Your task to perform on an android device: turn on notifications settings in the gmail app Image 0: 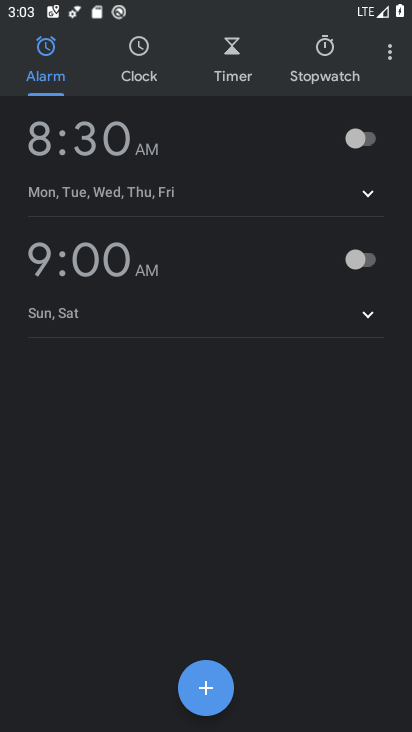
Step 0: press home button
Your task to perform on an android device: turn on notifications settings in the gmail app Image 1: 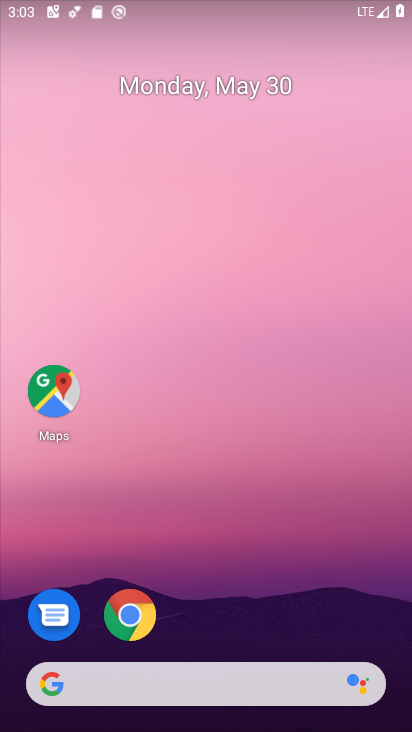
Step 1: drag from (228, 577) to (257, 59)
Your task to perform on an android device: turn on notifications settings in the gmail app Image 2: 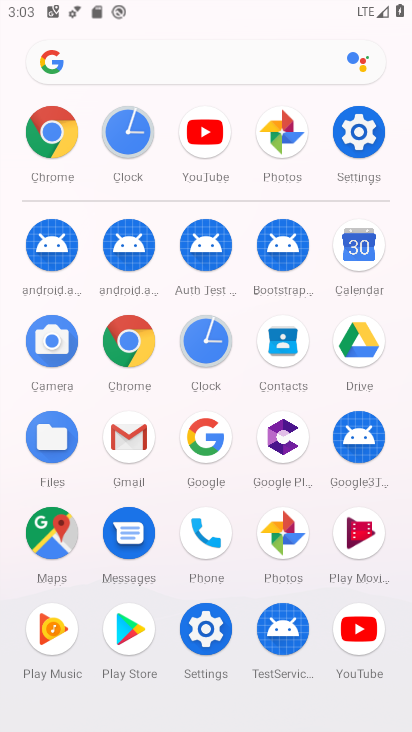
Step 2: click (143, 438)
Your task to perform on an android device: turn on notifications settings in the gmail app Image 3: 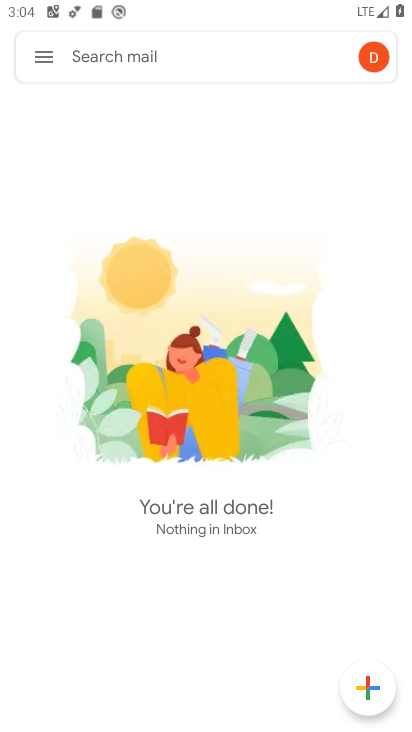
Step 3: click (43, 59)
Your task to perform on an android device: turn on notifications settings in the gmail app Image 4: 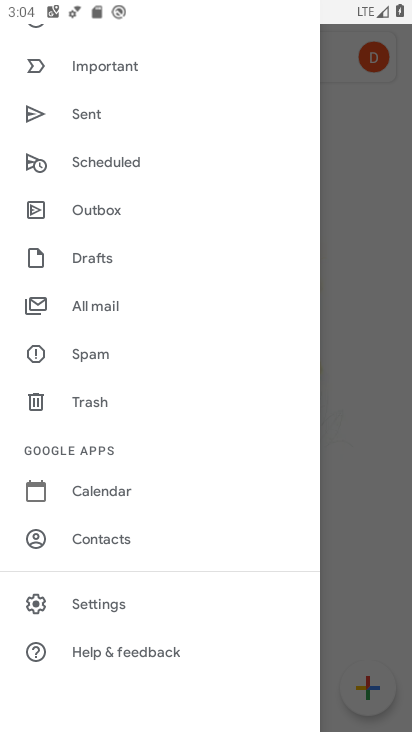
Step 4: click (107, 596)
Your task to perform on an android device: turn on notifications settings in the gmail app Image 5: 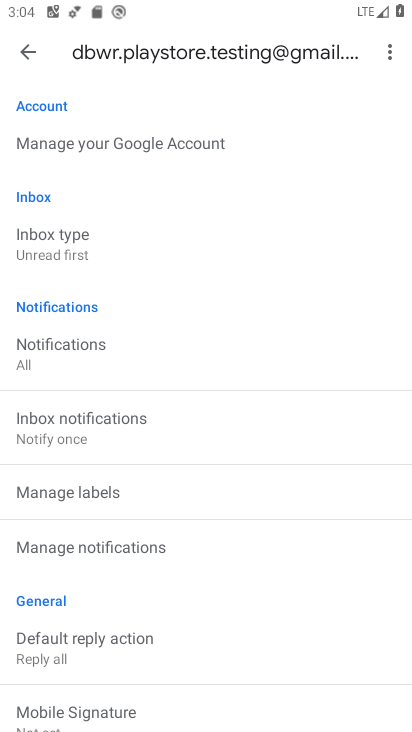
Step 5: click (192, 532)
Your task to perform on an android device: turn on notifications settings in the gmail app Image 6: 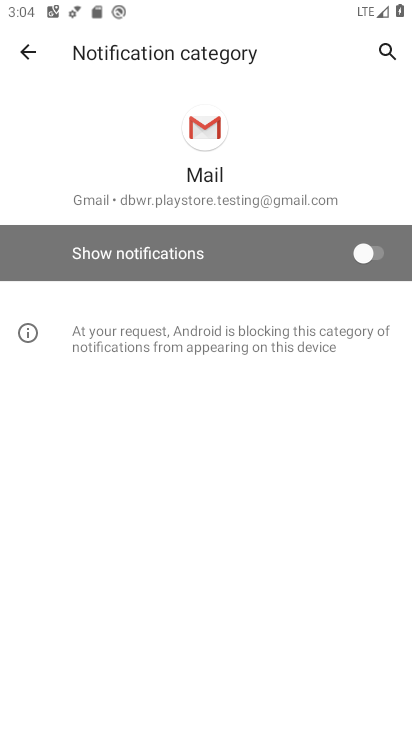
Step 6: click (366, 247)
Your task to perform on an android device: turn on notifications settings in the gmail app Image 7: 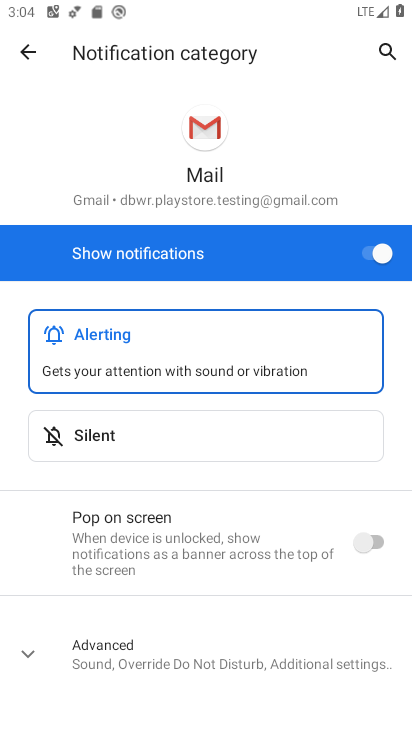
Step 7: task complete